Your task to perform on an android device: Show me the alarms in the clock app Image 0: 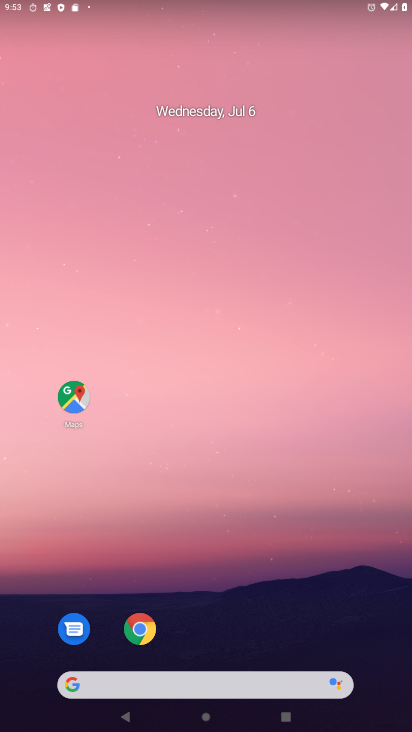
Step 0: drag from (14, 654) to (314, 62)
Your task to perform on an android device: Show me the alarms in the clock app Image 1: 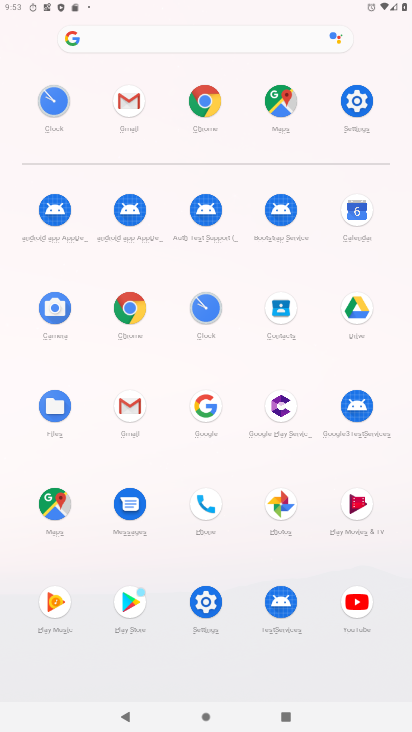
Step 1: click (210, 315)
Your task to perform on an android device: Show me the alarms in the clock app Image 2: 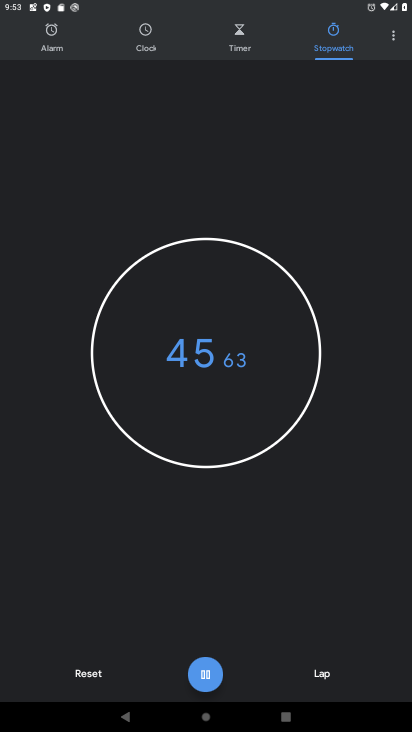
Step 2: click (42, 41)
Your task to perform on an android device: Show me the alarms in the clock app Image 3: 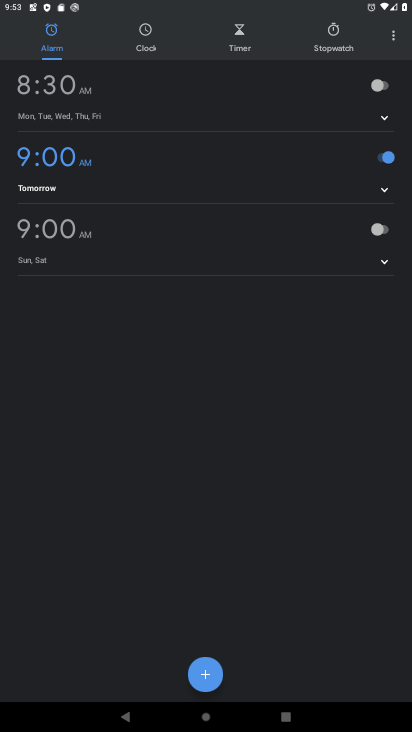
Step 3: task complete